Your task to perform on an android device: turn on javascript in the chrome app Image 0: 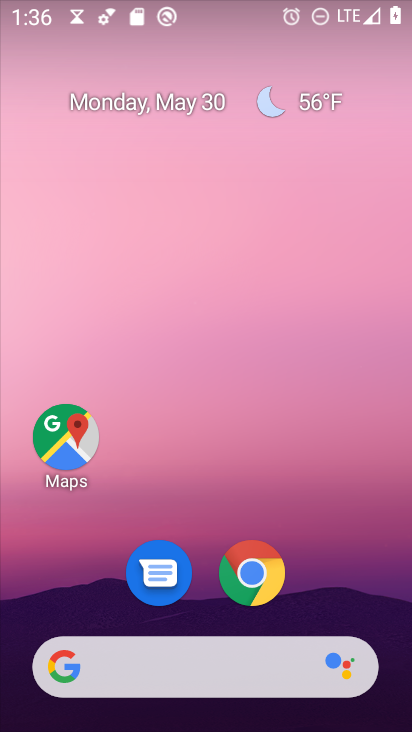
Step 0: drag from (295, 459) to (266, 24)
Your task to perform on an android device: turn on javascript in the chrome app Image 1: 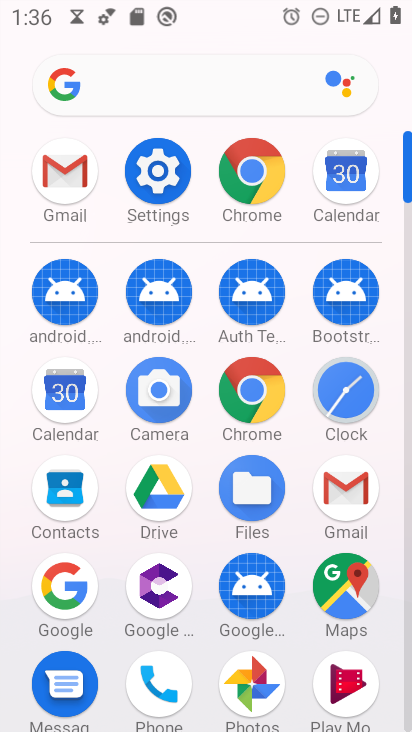
Step 1: click (235, 382)
Your task to perform on an android device: turn on javascript in the chrome app Image 2: 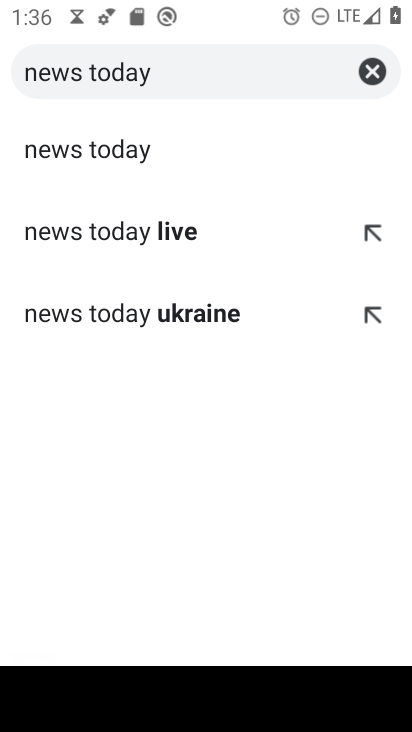
Step 2: press back button
Your task to perform on an android device: turn on javascript in the chrome app Image 3: 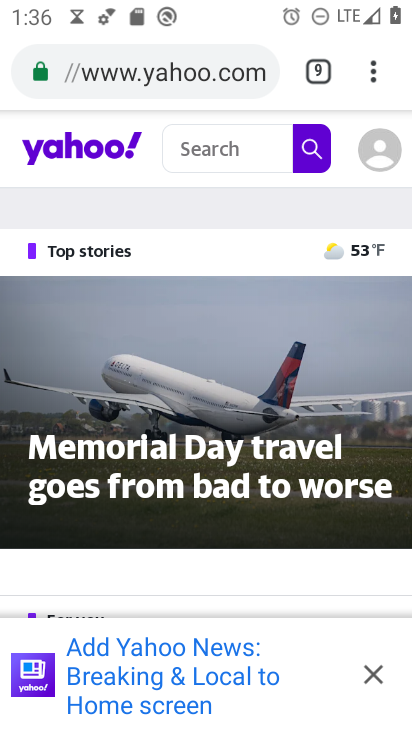
Step 3: drag from (366, 73) to (220, 563)
Your task to perform on an android device: turn on javascript in the chrome app Image 4: 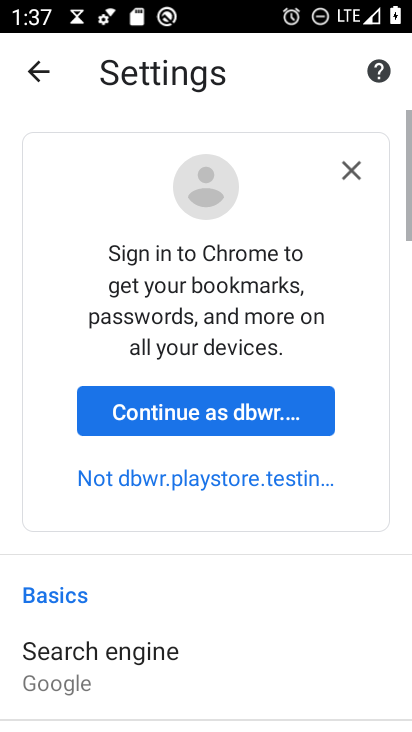
Step 4: drag from (228, 534) to (361, 10)
Your task to perform on an android device: turn on javascript in the chrome app Image 5: 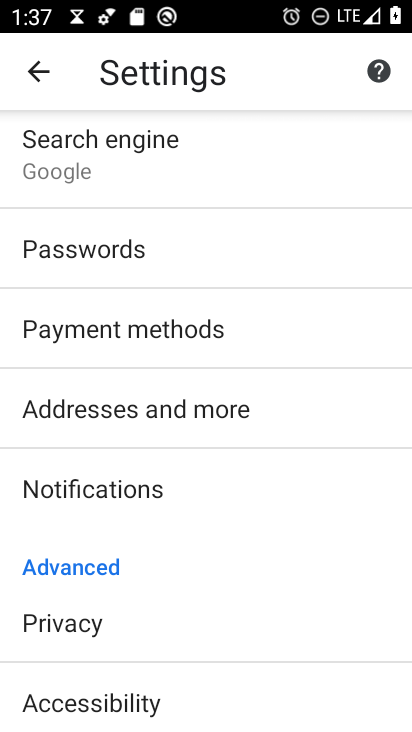
Step 5: drag from (194, 688) to (194, 344)
Your task to perform on an android device: turn on javascript in the chrome app Image 6: 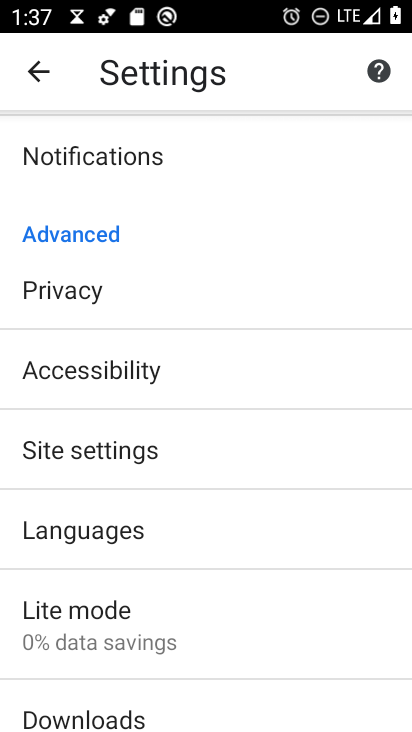
Step 6: click (134, 453)
Your task to perform on an android device: turn on javascript in the chrome app Image 7: 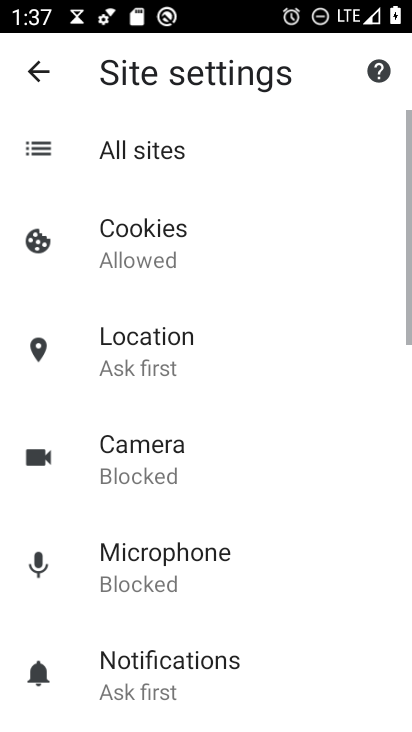
Step 7: drag from (202, 690) to (248, 209)
Your task to perform on an android device: turn on javascript in the chrome app Image 8: 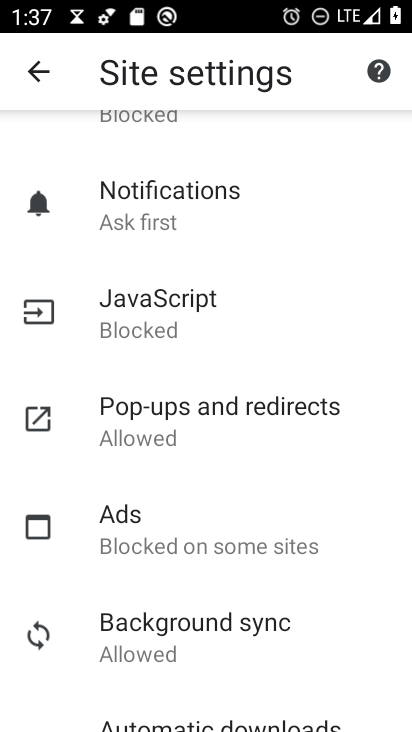
Step 8: click (242, 322)
Your task to perform on an android device: turn on javascript in the chrome app Image 9: 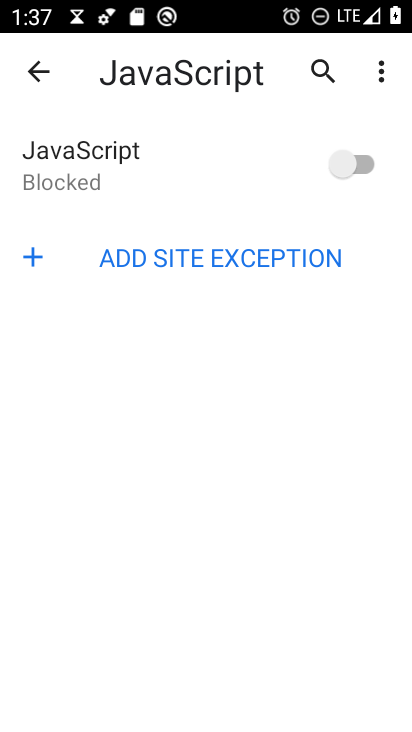
Step 9: click (364, 161)
Your task to perform on an android device: turn on javascript in the chrome app Image 10: 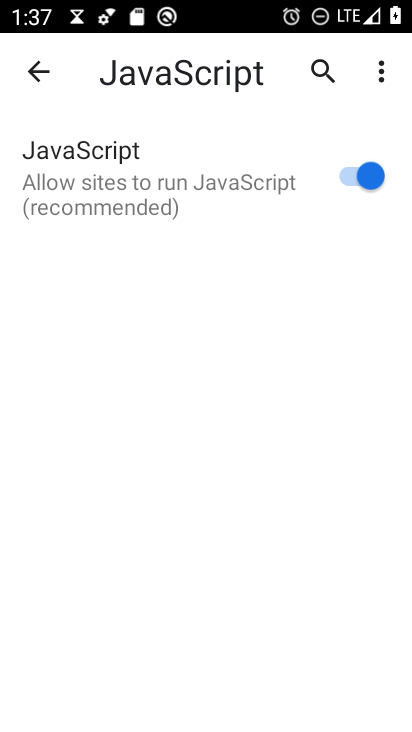
Step 10: task complete